Your task to perform on an android device: Open Yahoo.com Image 0: 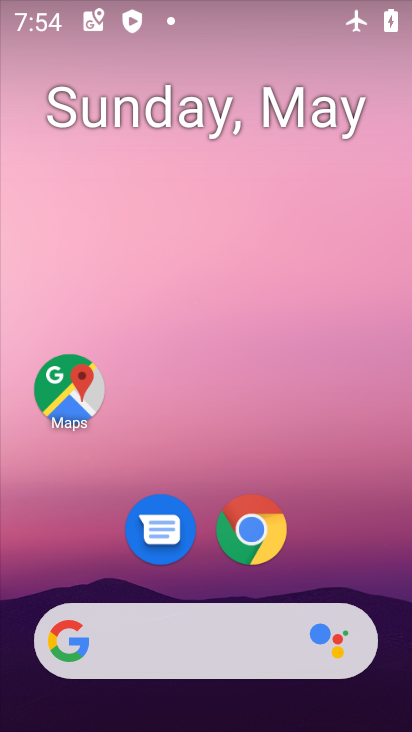
Step 0: click (247, 531)
Your task to perform on an android device: Open Yahoo.com Image 1: 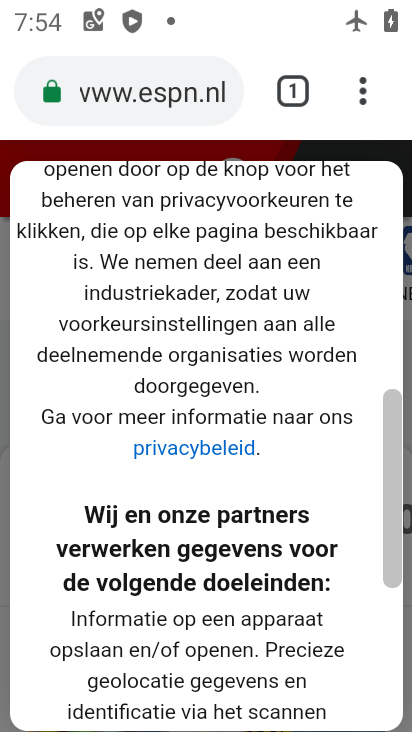
Step 1: click (108, 91)
Your task to perform on an android device: Open Yahoo.com Image 2: 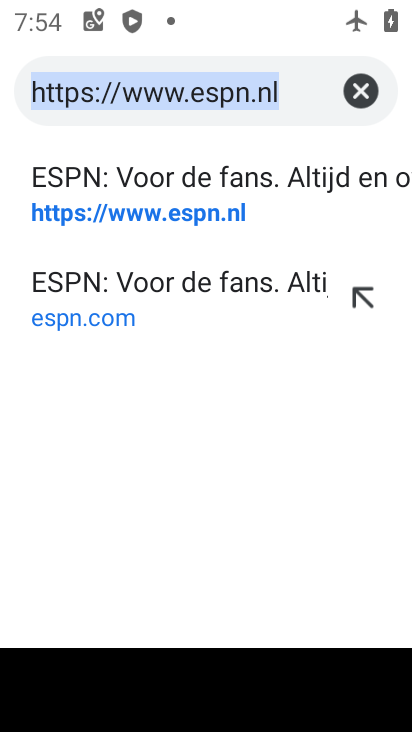
Step 2: click (368, 92)
Your task to perform on an android device: Open Yahoo.com Image 3: 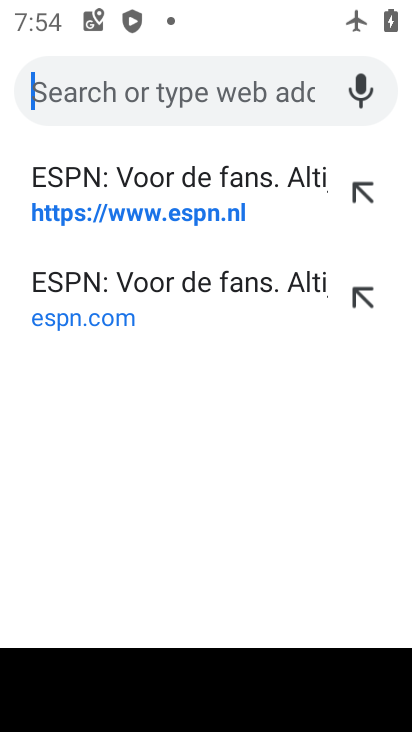
Step 3: type "yahoo.com"
Your task to perform on an android device: Open Yahoo.com Image 4: 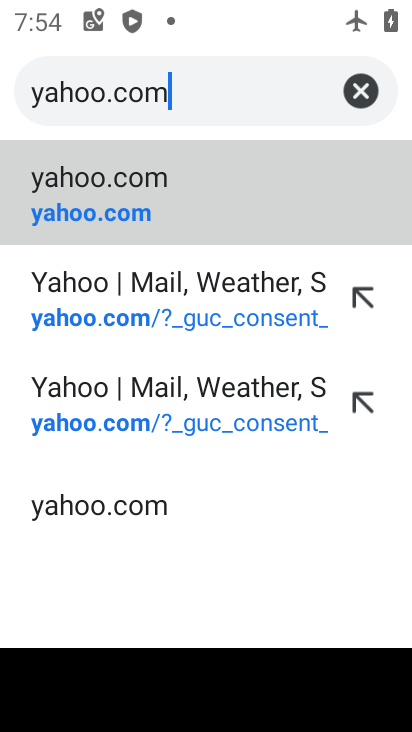
Step 4: click (103, 219)
Your task to perform on an android device: Open Yahoo.com Image 5: 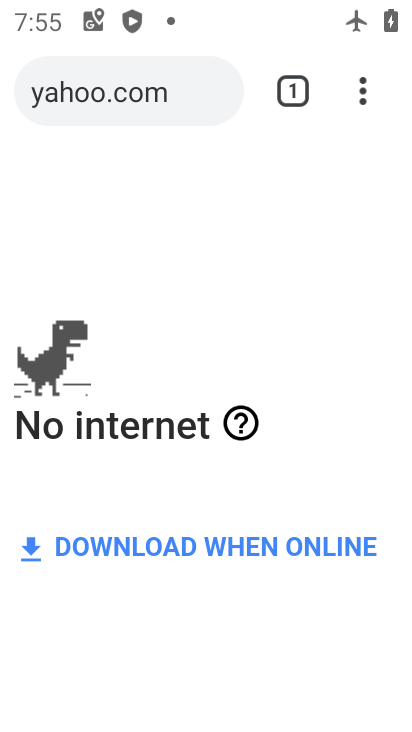
Step 5: task complete